Your task to perform on an android device: refresh tabs in the chrome app Image 0: 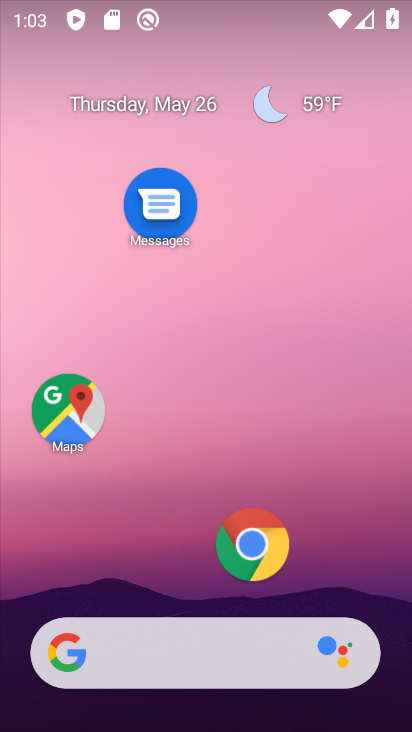
Step 0: click (267, 544)
Your task to perform on an android device: refresh tabs in the chrome app Image 1: 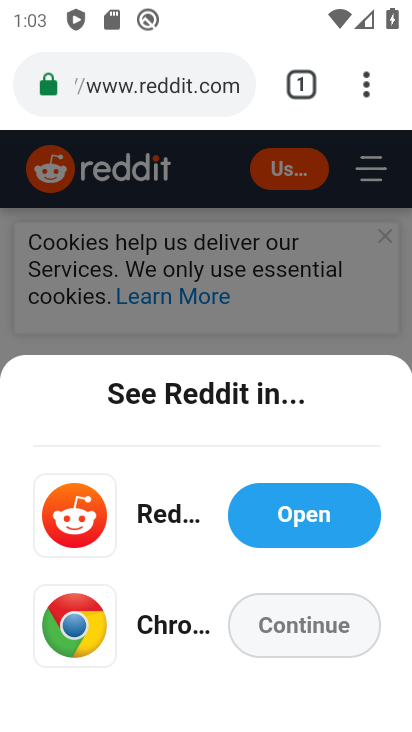
Step 1: click (382, 74)
Your task to perform on an android device: refresh tabs in the chrome app Image 2: 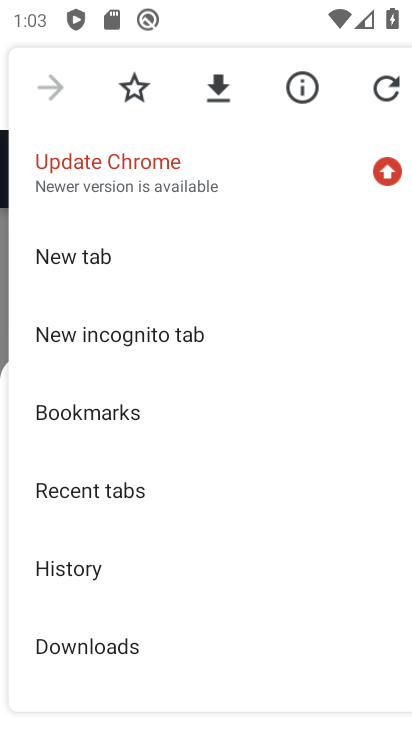
Step 2: click (382, 74)
Your task to perform on an android device: refresh tabs in the chrome app Image 3: 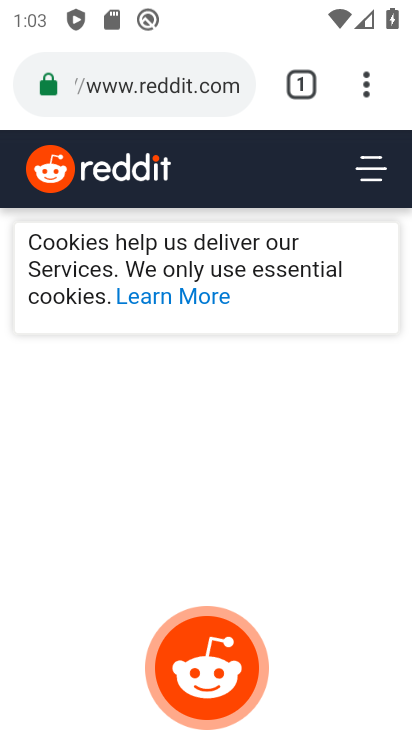
Step 3: task complete